Your task to perform on an android device: turn on priority inbox in the gmail app Image 0: 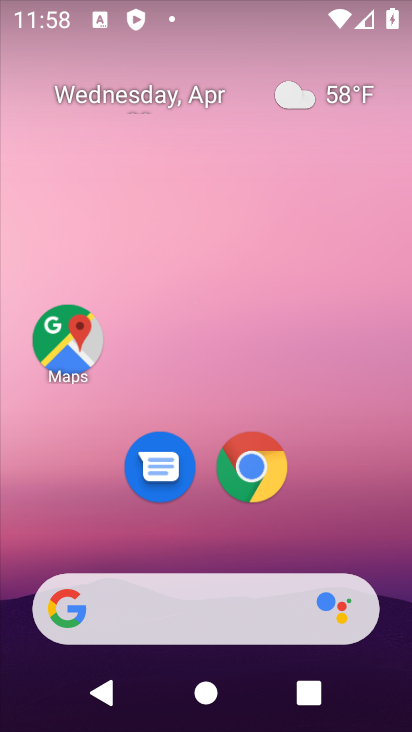
Step 0: drag from (235, 551) to (242, 101)
Your task to perform on an android device: turn on priority inbox in the gmail app Image 1: 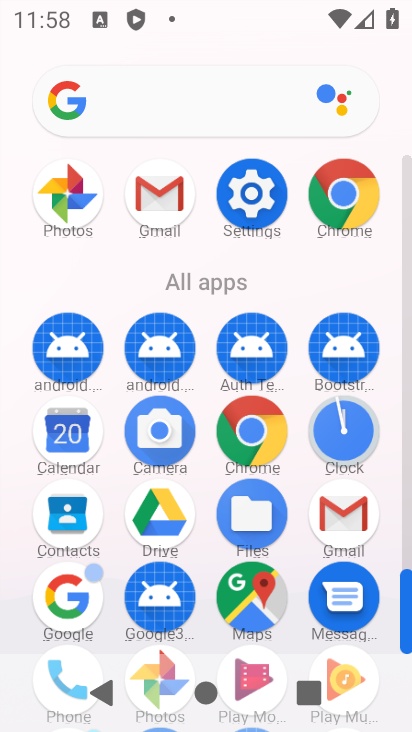
Step 1: click (339, 509)
Your task to perform on an android device: turn on priority inbox in the gmail app Image 2: 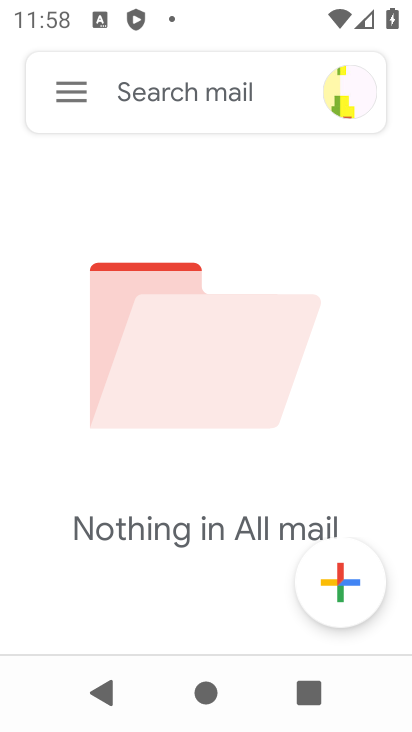
Step 2: click (59, 101)
Your task to perform on an android device: turn on priority inbox in the gmail app Image 3: 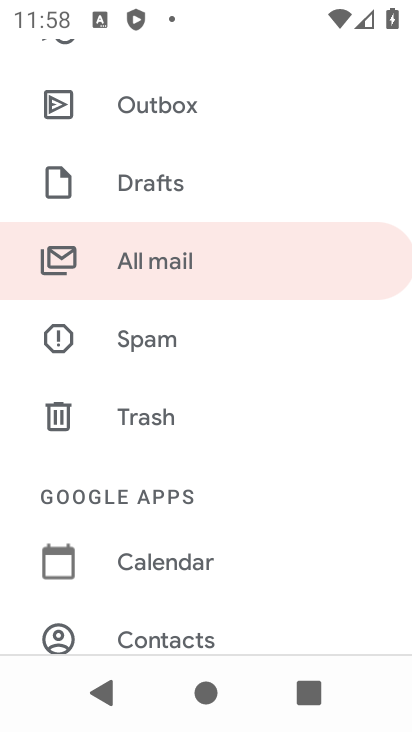
Step 3: drag from (236, 593) to (261, 141)
Your task to perform on an android device: turn on priority inbox in the gmail app Image 4: 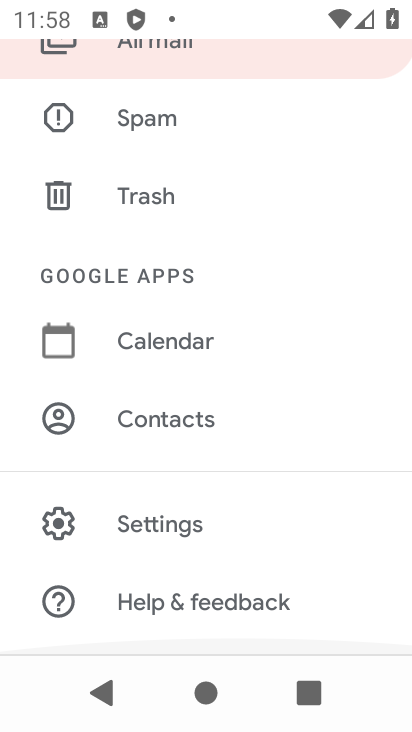
Step 4: click (152, 527)
Your task to perform on an android device: turn on priority inbox in the gmail app Image 5: 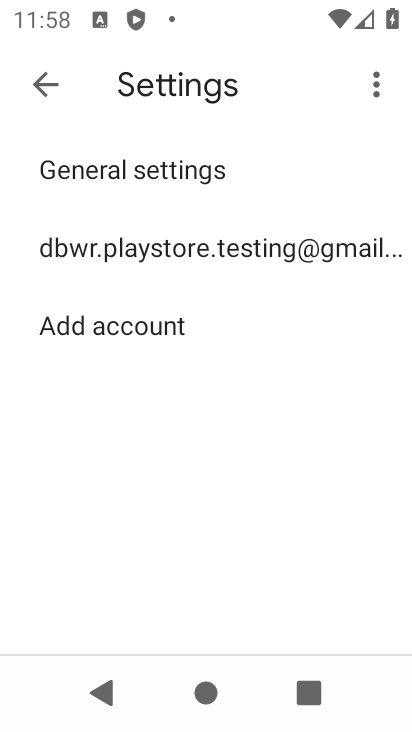
Step 5: click (160, 256)
Your task to perform on an android device: turn on priority inbox in the gmail app Image 6: 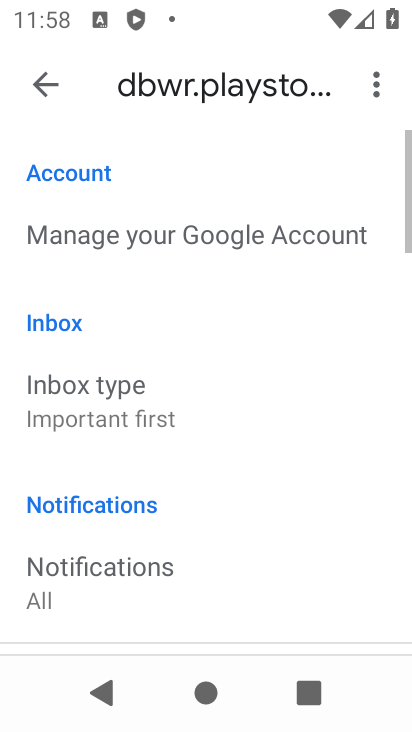
Step 6: drag from (220, 553) to (222, 417)
Your task to perform on an android device: turn on priority inbox in the gmail app Image 7: 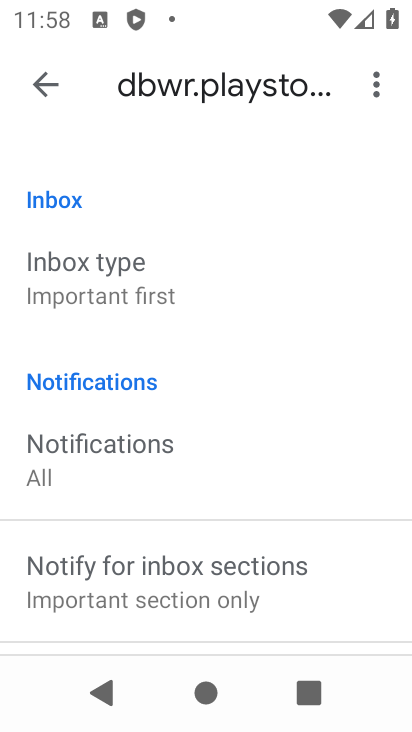
Step 7: click (137, 278)
Your task to perform on an android device: turn on priority inbox in the gmail app Image 8: 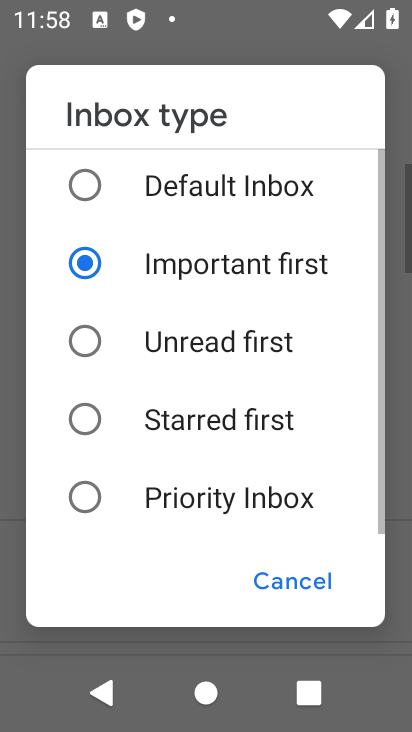
Step 8: click (137, 491)
Your task to perform on an android device: turn on priority inbox in the gmail app Image 9: 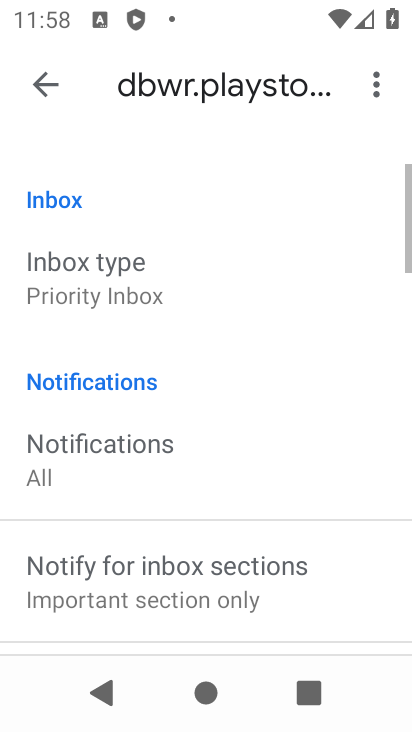
Step 9: task complete